Your task to perform on an android device: Open notification settings Image 0: 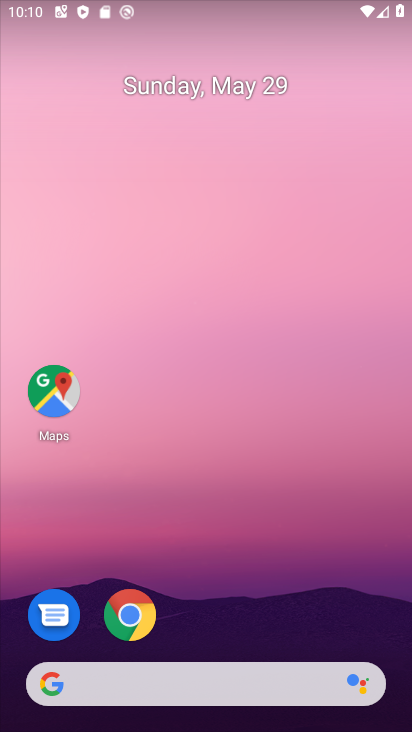
Step 0: drag from (195, 666) to (391, 55)
Your task to perform on an android device: Open notification settings Image 1: 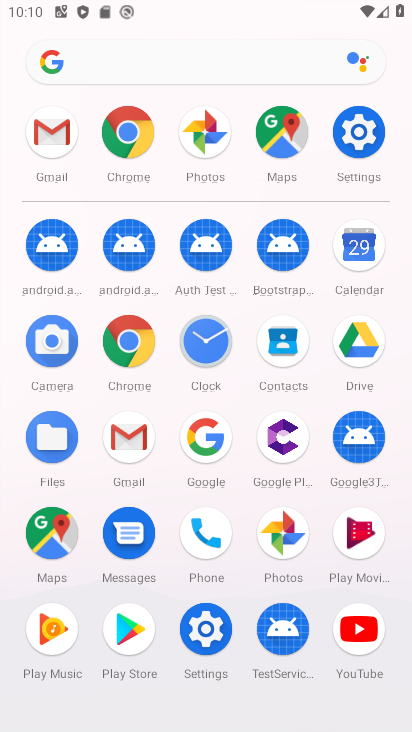
Step 1: click (215, 625)
Your task to perform on an android device: Open notification settings Image 2: 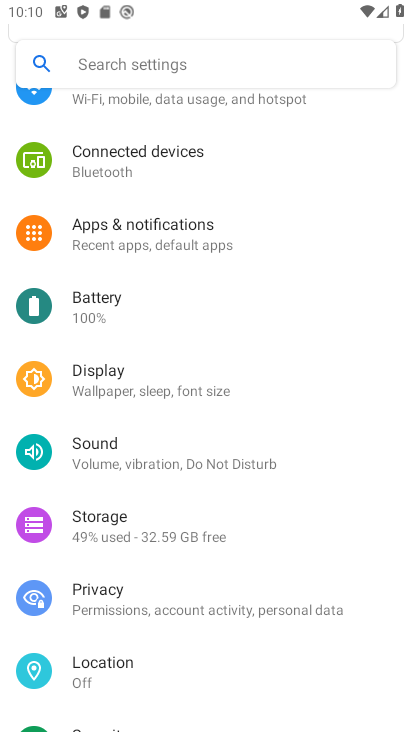
Step 2: click (166, 218)
Your task to perform on an android device: Open notification settings Image 3: 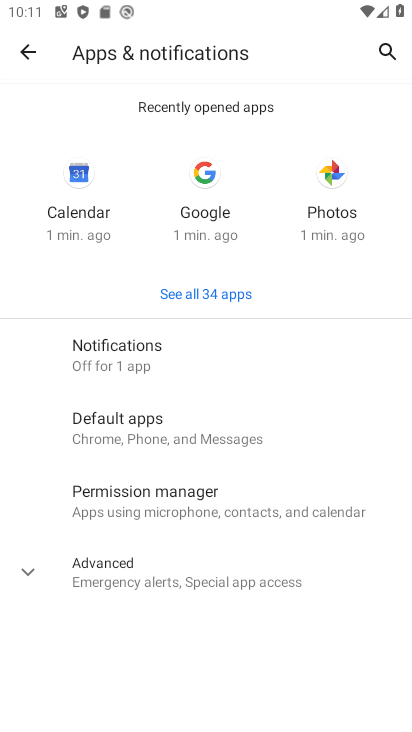
Step 3: click (166, 360)
Your task to perform on an android device: Open notification settings Image 4: 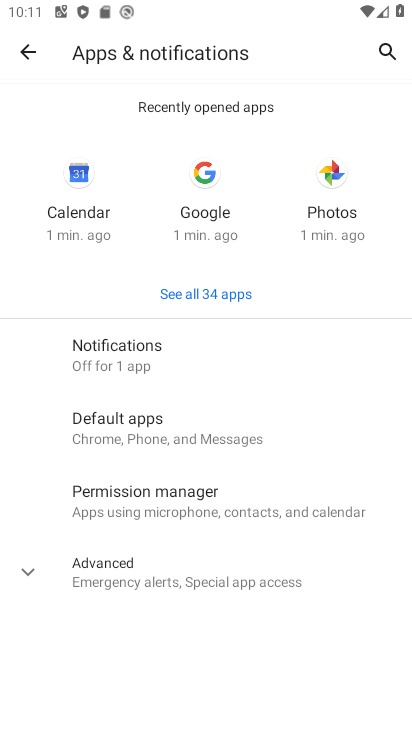
Step 4: task complete